Your task to perform on an android device: When is my next meeting? Image 0: 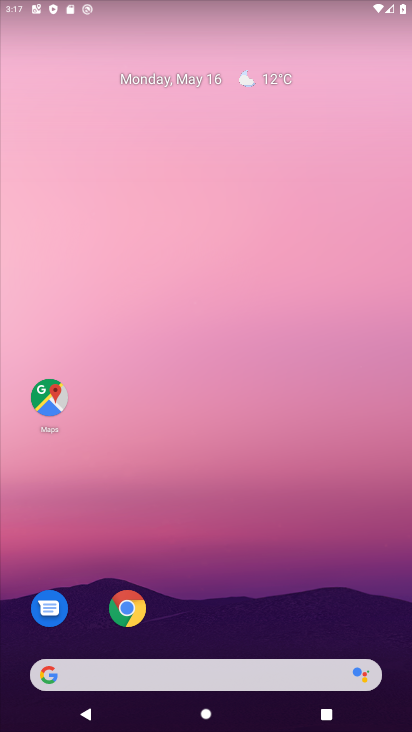
Step 0: drag from (184, 363) to (197, 91)
Your task to perform on an android device: When is my next meeting? Image 1: 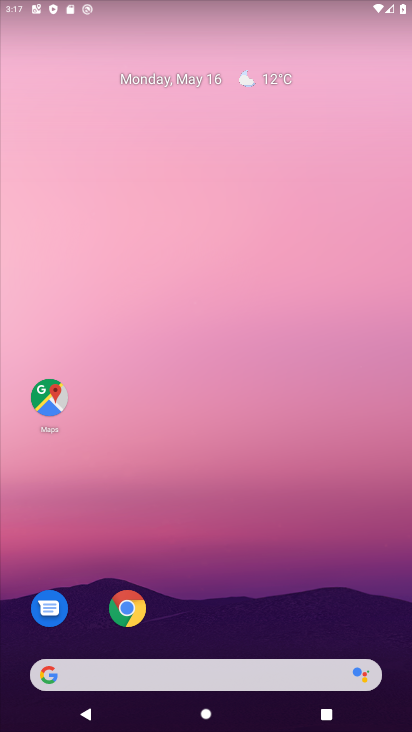
Step 1: drag from (193, 629) to (246, 121)
Your task to perform on an android device: When is my next meeting? Image 2: 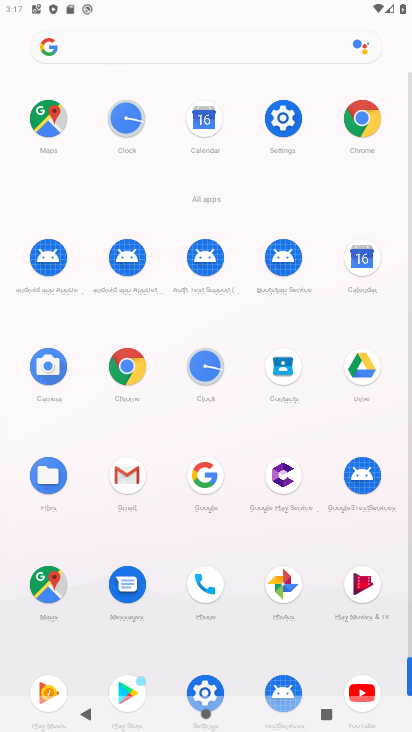
Step 2: click (369, 261)
Your task to perform on an android device: When is my next meeting? Image 3: 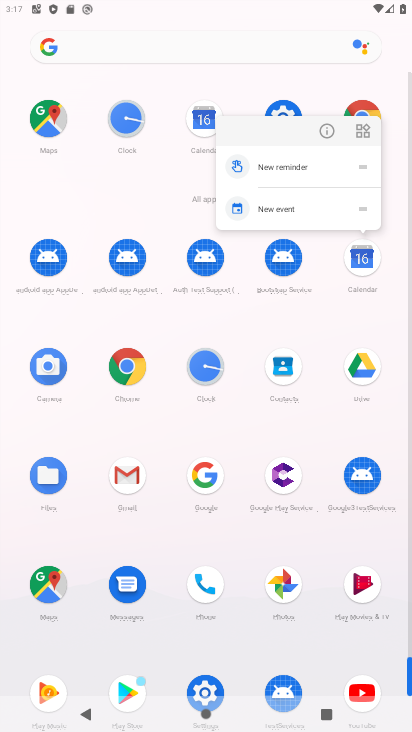
Step 3: click (363, 264)
Your task to perform on an android device: When is my next meeting? Image 4: 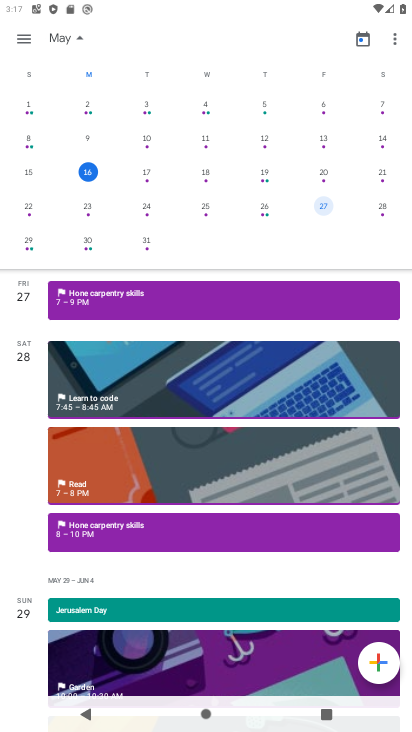
Step 4: click (140, 163)
Your task to perform on an android device: When is my next meeting? Image 5: 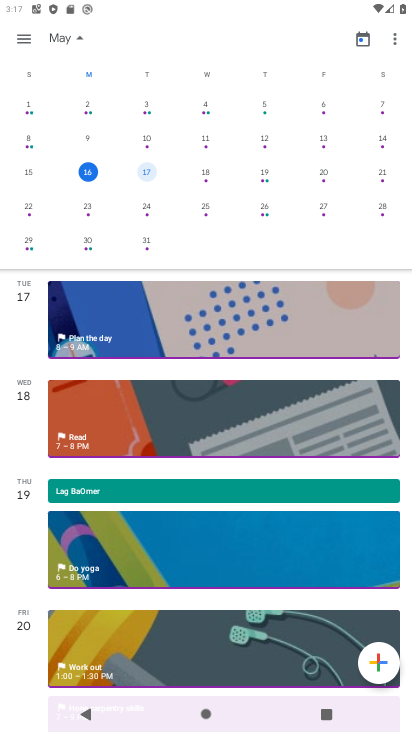
Step 5: click (209, 175)
Your task to perform on an android device: When is my next meeting? Image 6: 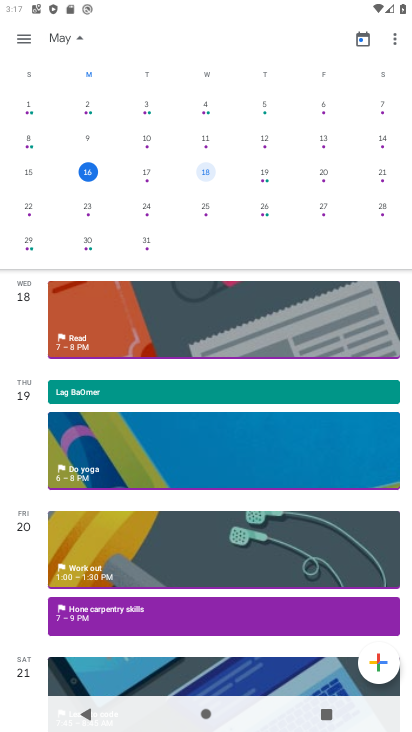
Step 6: click (267, 172)
Your task to perform on an android device: When is my next meeting? Image 7: 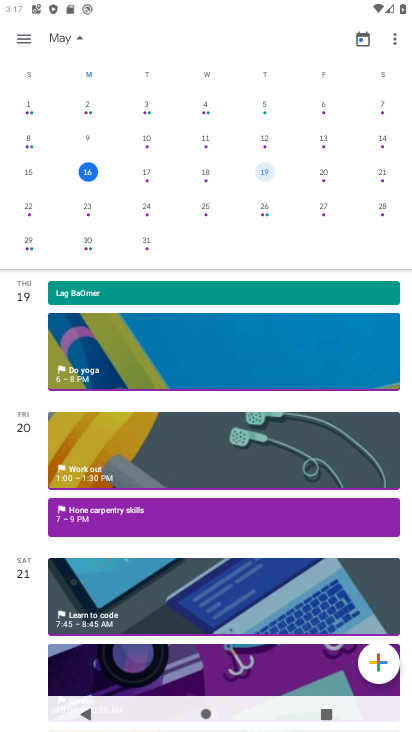
Step 7: click (329, 178)
Your task to perform on an android device: When is my next meeting? Image 8: 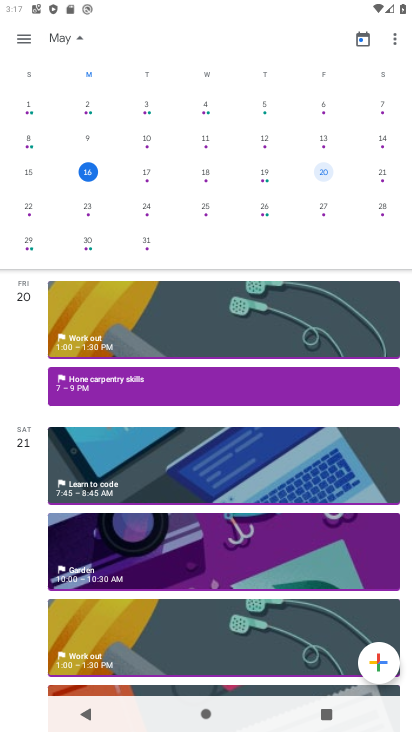
Step 8: click (389, 177)
Your task to perform on an android device: When is my next meeting? Image 9: 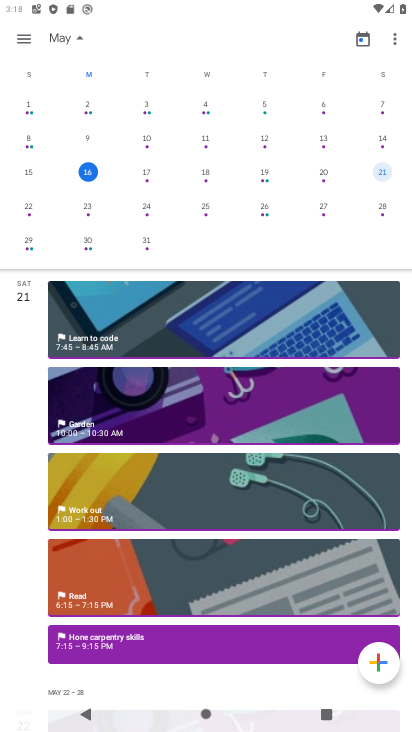
Step 9: click (88, 206)
Your task to perform on an android device: When is my next meeting? Image 10: 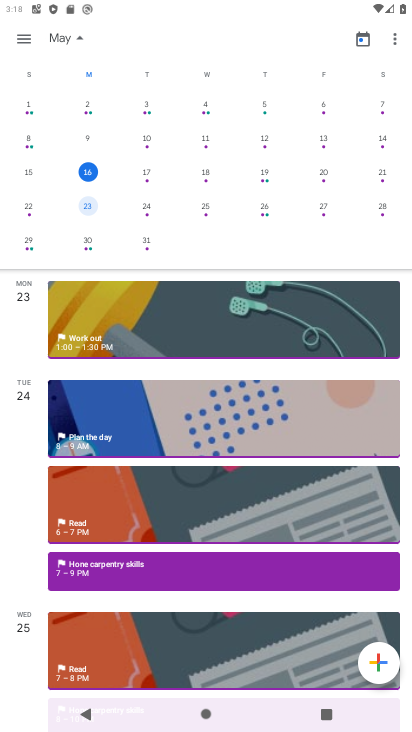
Step 10: click (150, 211)
Your task to perform on an android device: When is my next meeting? Image 11: 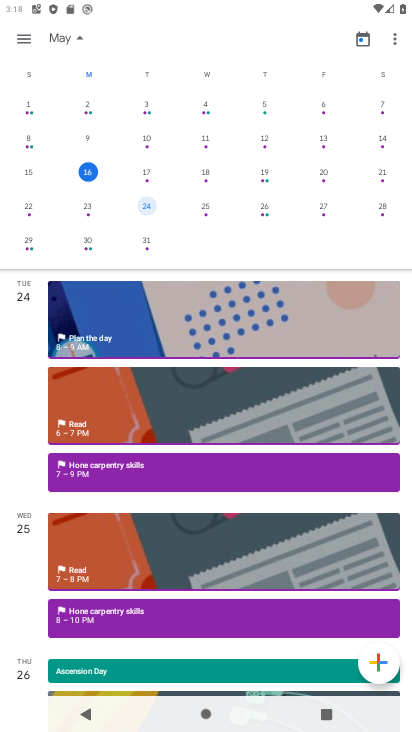
Step 11: click (210, 206)
Your task to perform on an android device: When is my next meeting? Image 12: 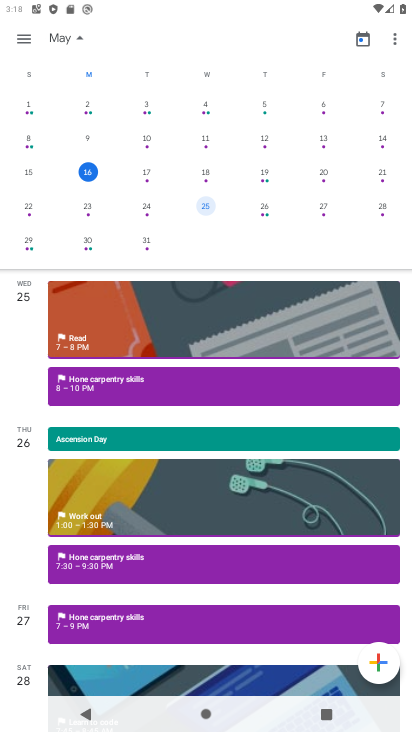
Step 12: click (263, 210)
Your task to perform on an android device: When is my next meeting? Image 13: 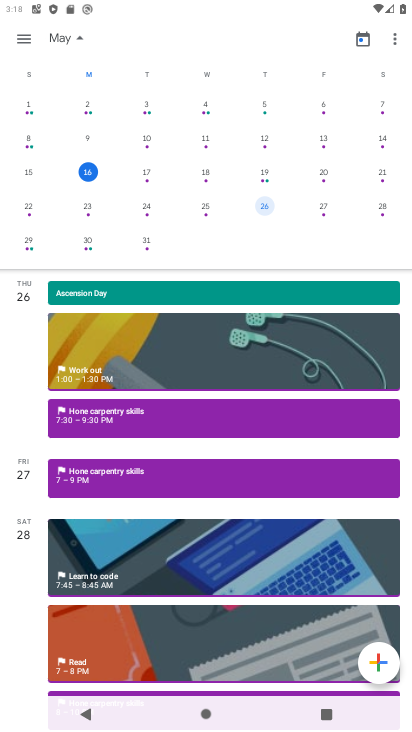
Step 13: task complete